Your task to perform on an android device: What is the recent news? Image 0: 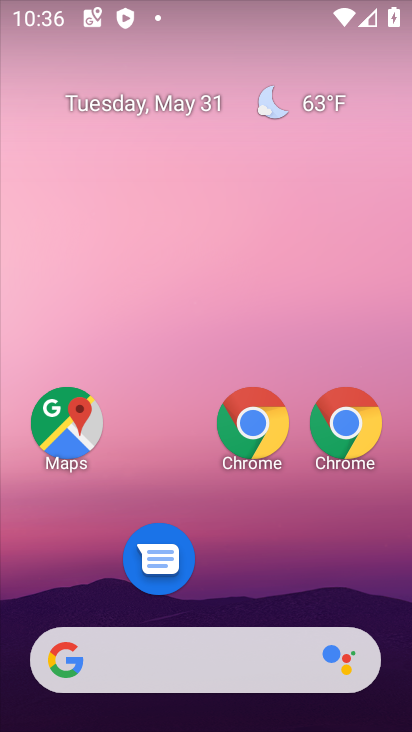
Step 0: drag from (21, 296) to (383, 382)
Your task to perform on an android device: What is the recent news? Image 1: 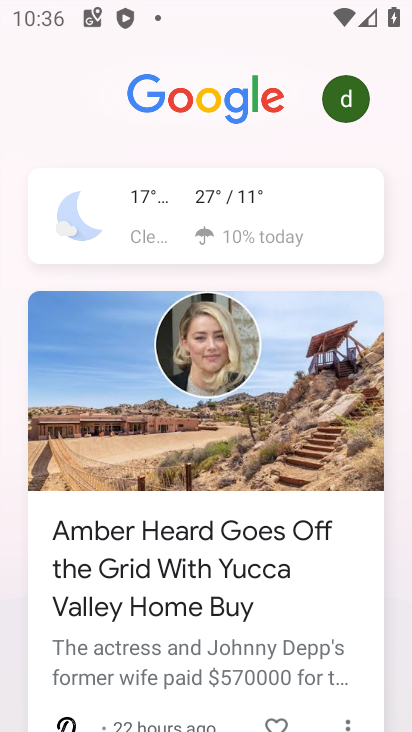
Step 1: task complete